Your task to perform on an android device: Open notification settings Image 0: 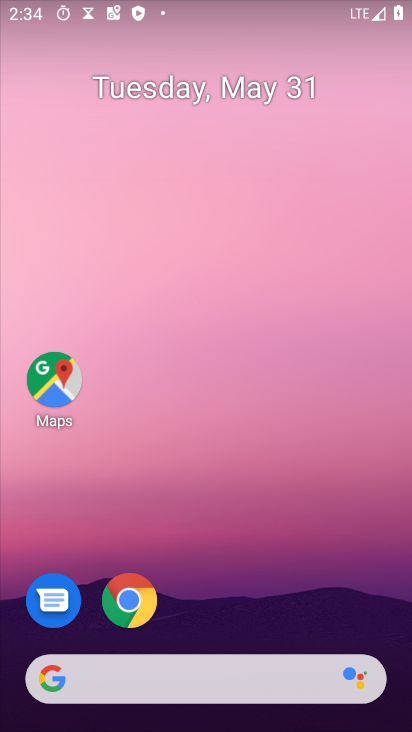
Step 0: drag from (223, 629) to (227, 46)
Your task to perform on an android device: Open notification settings Image 1: 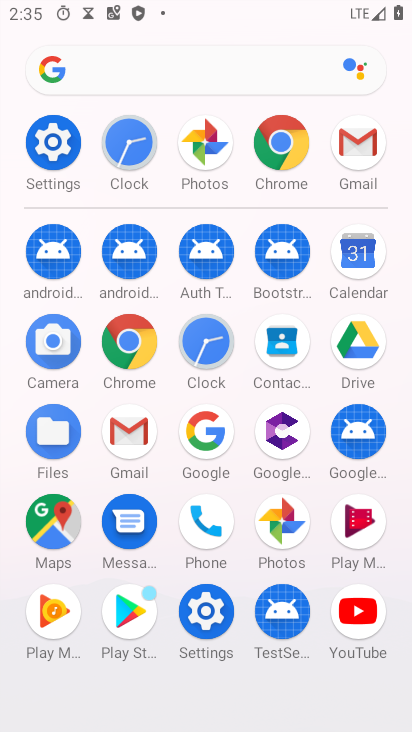
Step 1: click (204, 605)
Your task to perform on an android device: Open notification settings Image 2: 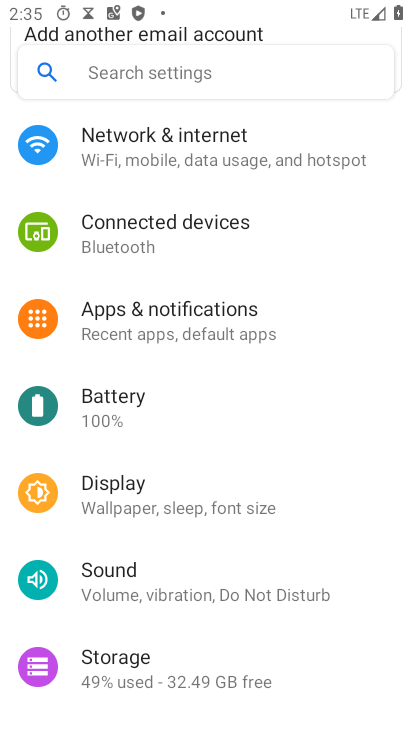
Step 2: click (215, 315)
Your task to perform on an android device: Open notification settings Image 3: 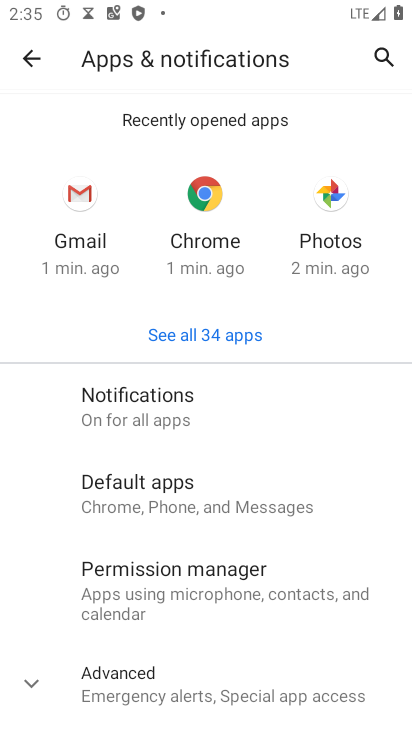
Step 3: click (207, 407)
Your task to perform on an android device: Open notification settings Image 4: 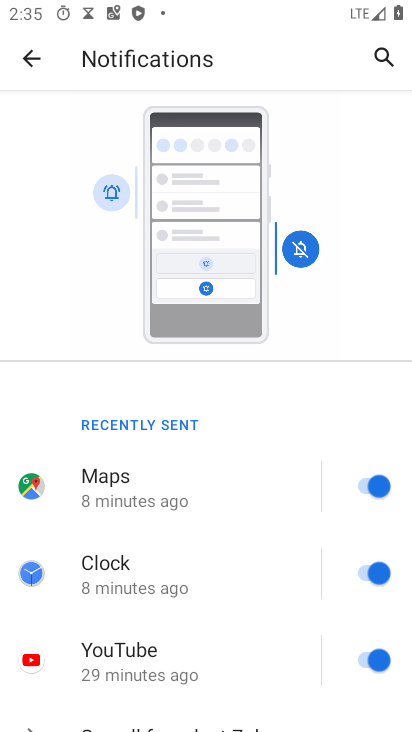
Step 4: drag from (194, 628) to (260, 174)
Your task to perform on an android device: Open notification settings Image 5: 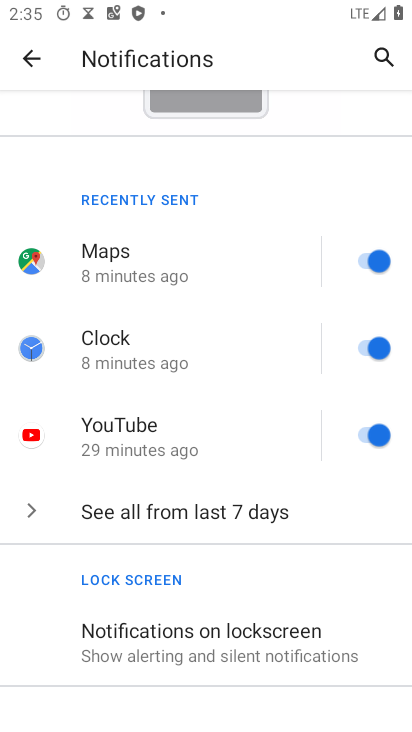
Step 5: click (258, 269)
Your task to perform on an android device: Open notification settings Image 6: 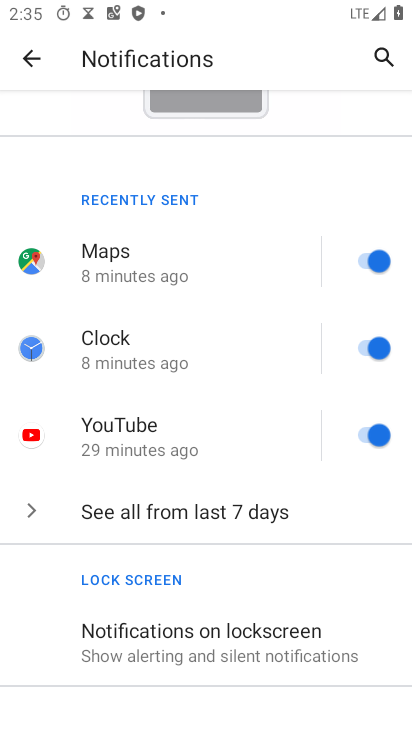
Step 6: drag from (169, 604) to (196, 277)
Your task to perform on an android device: Open notification settings Image 7: 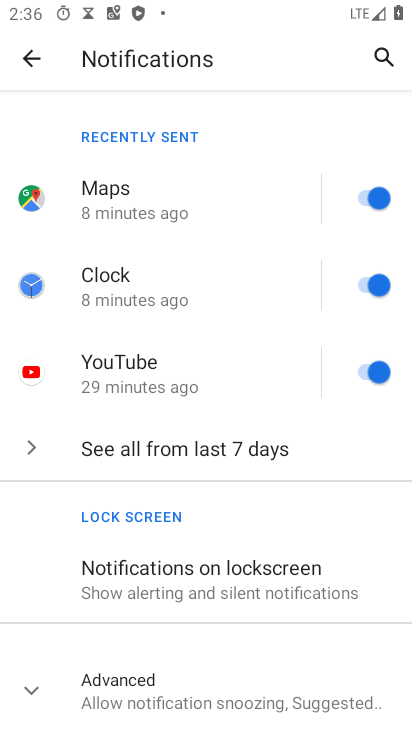
Step 7: click (33, 691)
Your task to perform on an android device: Open notification settings Image 8: 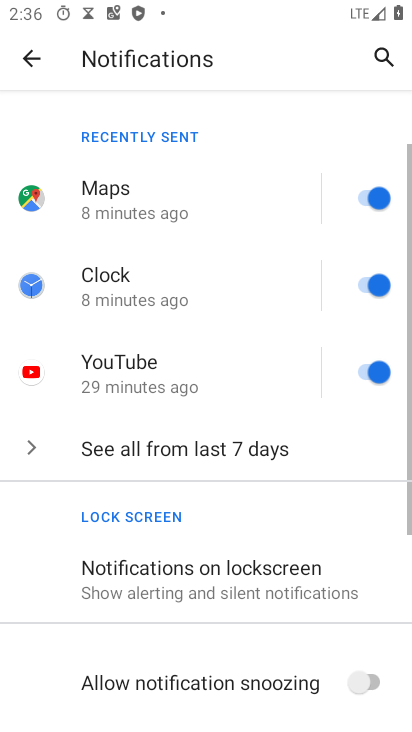
Step 8: task complete